Your task to perform on an android device: move a message to another label in the gmail app Image 0: 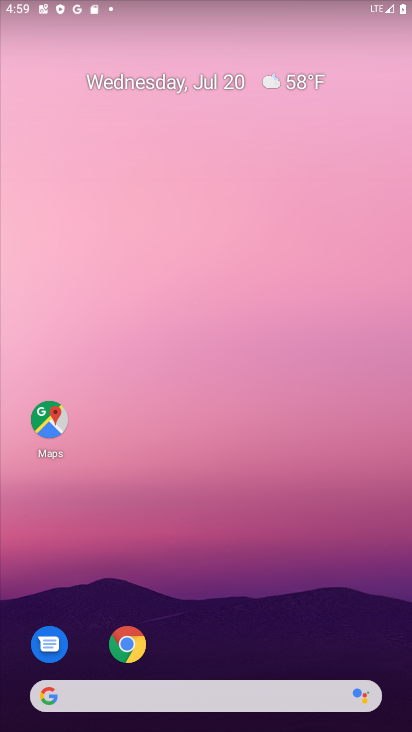
Step 0: press home button
Your task to perform on an android device: move a message to another label in the gmail app Image 1: 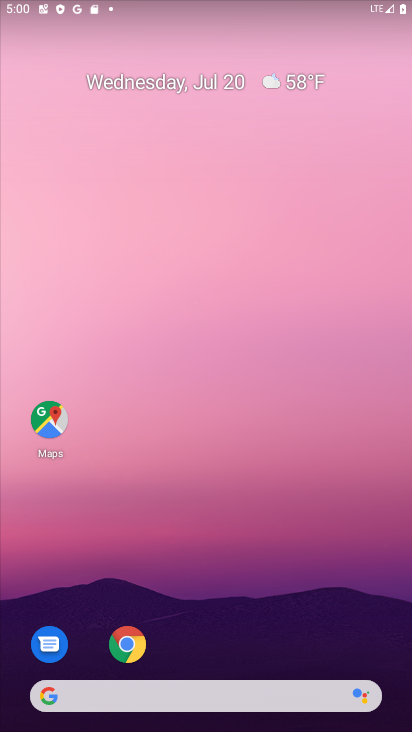
Step 1: drag from (250, 648) to (318, 12)
Your task to perform on an android device: move a message to another label in the gmail app Image 2: 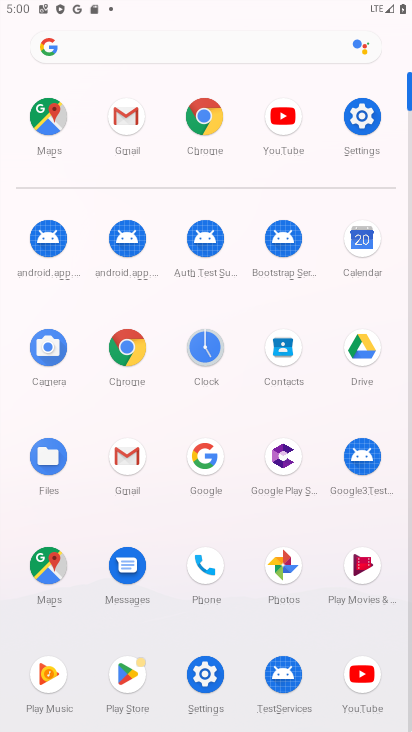
Step 2: click (130, 124)
Your task to perform on an android device: move a message to another label in the gmail app Image 3: 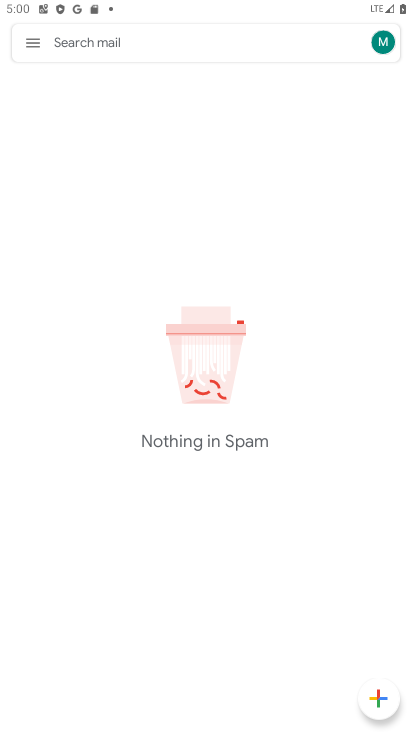
Step 3: click (37, 38)
Your task to perform on an android device: move a message to another label in the gmail app Image 4: 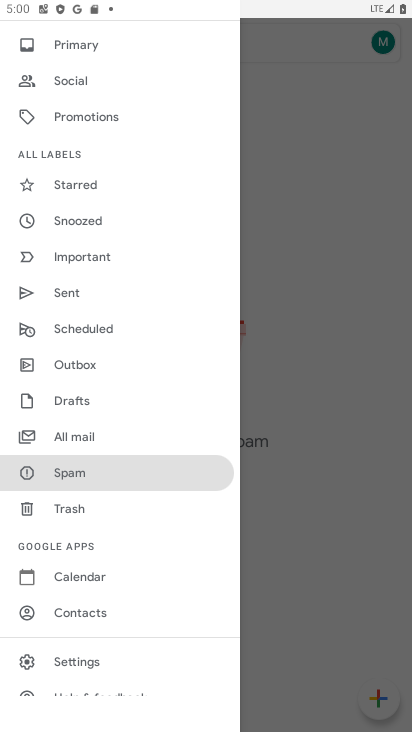
Step 4: click (72, 446)
Your task to perform on an android device: move a message to another label in the gmail app Image 5: 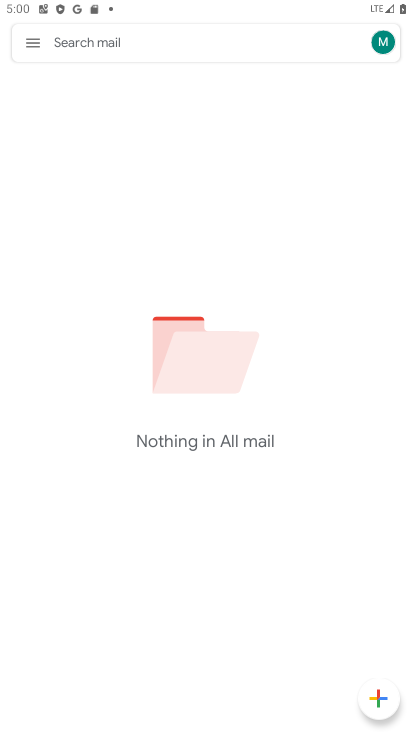
Step 5: task complete